Your task to perform on an android device: turn on wifi Image 0: 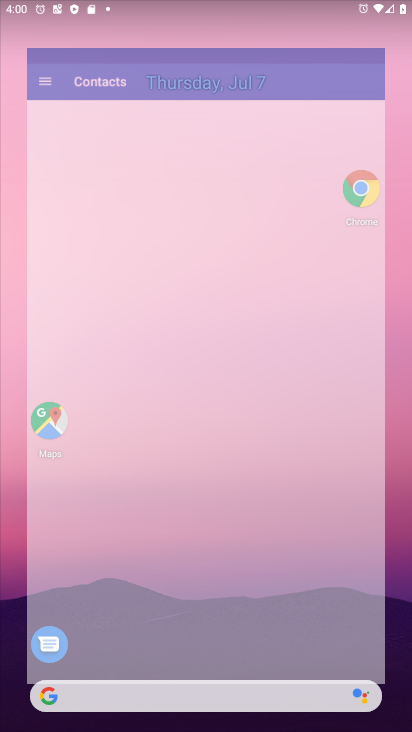
Step 0: press home button
Your task to perform on an android device: turn on wifi Image 1: 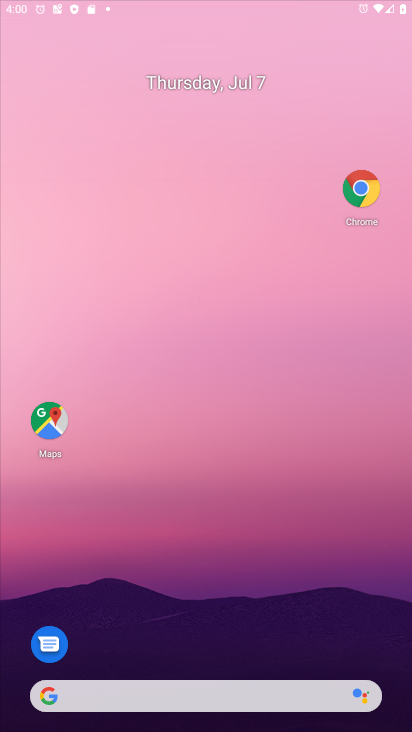
Step 1: drag from (261, 623) to (206, 680)
Your task to perform on an android device: turn on wifi Image 2: 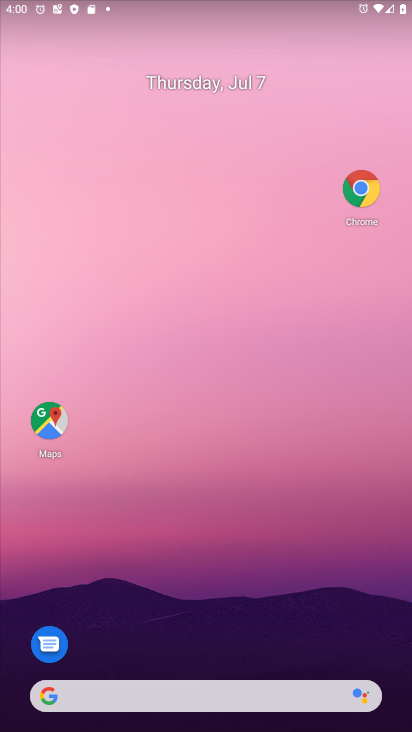
Step 2: drag from (297, 5) to (195, 714)
Your task to perform on an android device: turn on wifi Image 3: 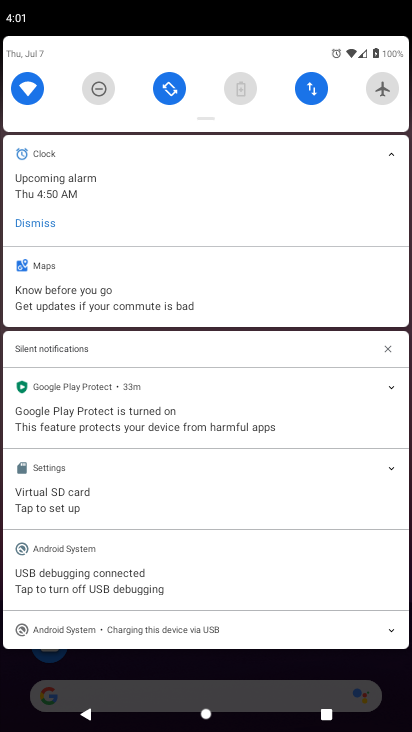
Step 3: click (39, 94)
Your task to perform on an android device: turn on wifi Image 4: 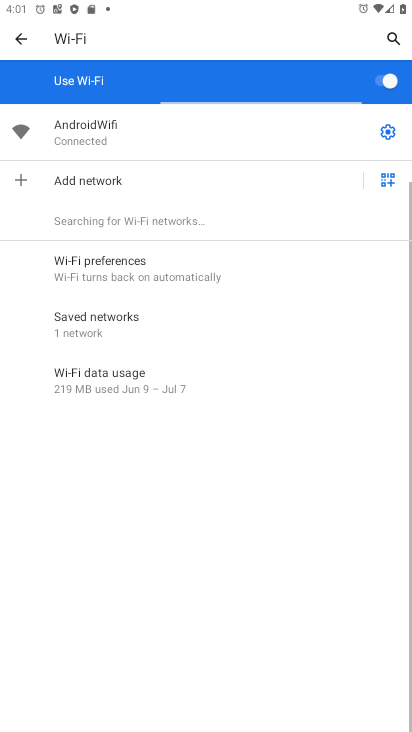
Step 4: task complete